Your task to perform on an android device: Open the stopwatch Image 0: 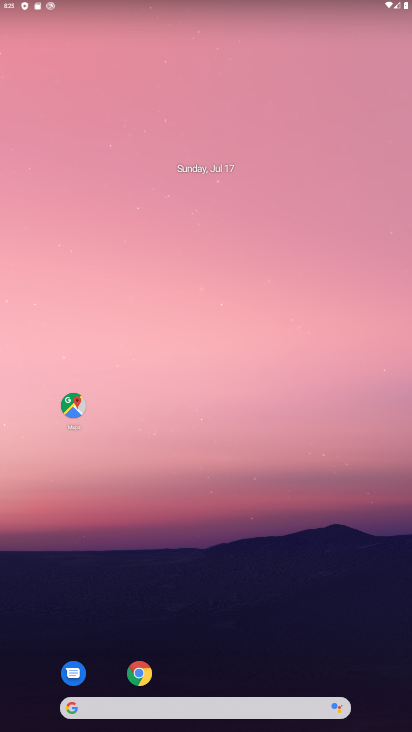
Step 0: drag from (284, 619) to (243, 102)
Your task to perform on an android device: Open the stopwatch Image 1: 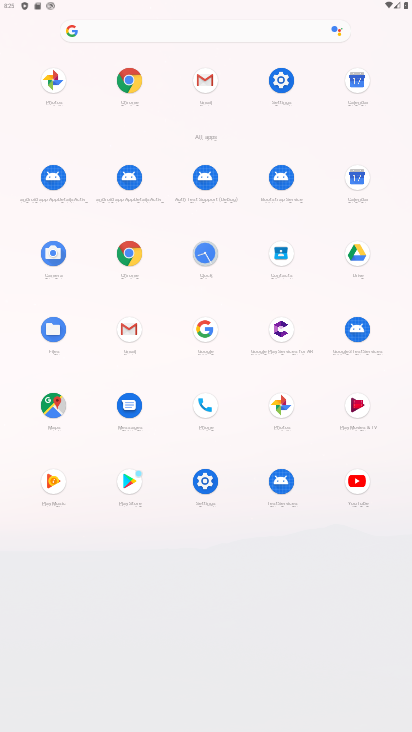
Step 1: click (207, 246)
Your task to perform on an android device: Open the stopwatch Image 2: 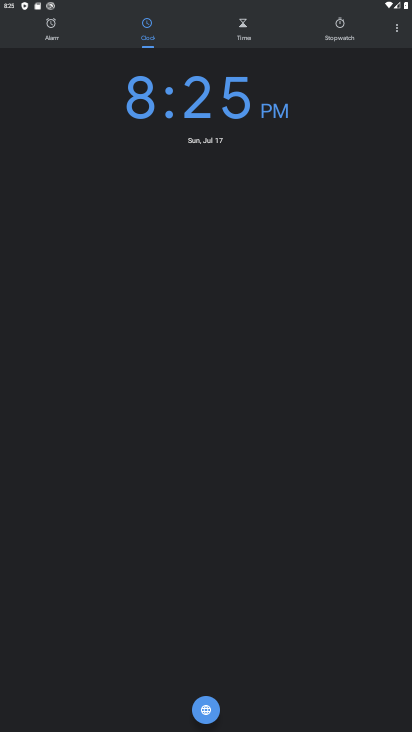
Step 2: click (340, 32)
Your task to perform on an android device: Open the stopwatch Image 3: 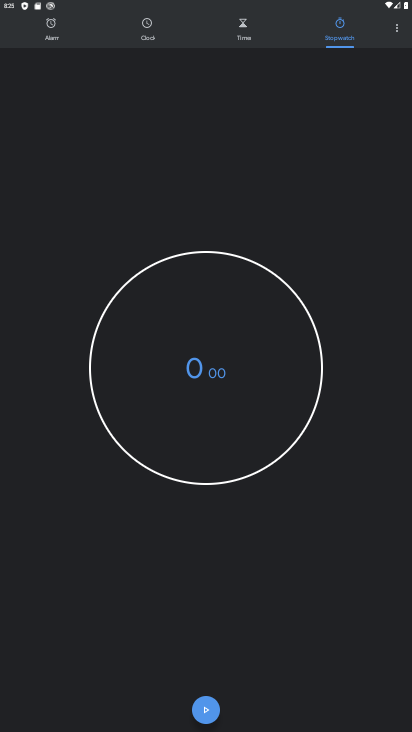
Step 3: task complete